Your task to perform on an android device: Open the calendar app, open the side menu, and click the "Day" option Image 0: 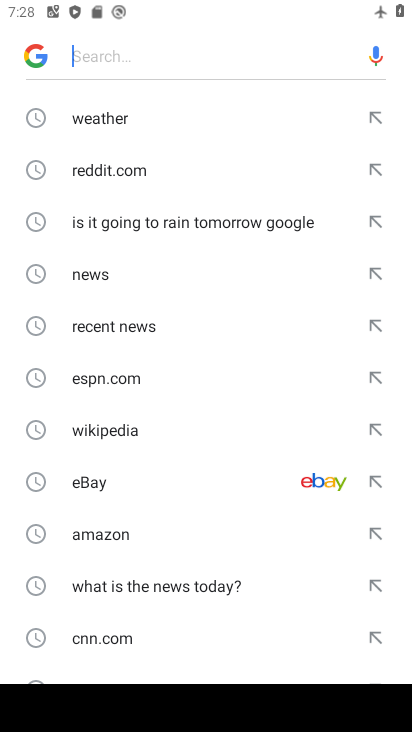
Step 0: press home button
Your task to perform on an android device: Open the calendar app, open the side menu, and click the "Day" option Image 1: 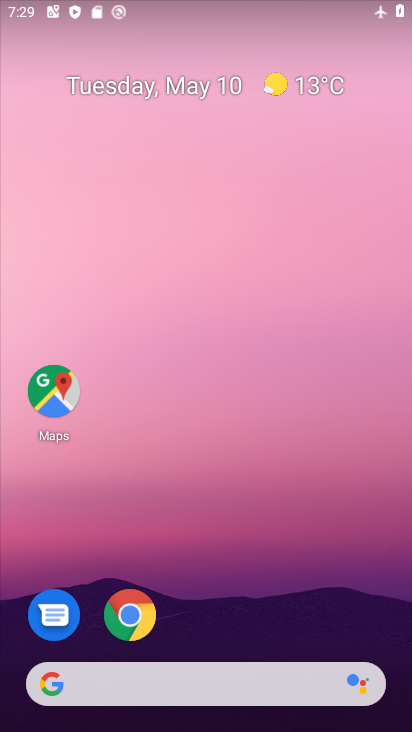
Step 1: drag from (248, 499) to (160, 98)
Your task to perform on an android device: Open the calendar app, open the side menu, and click the "Day" option Image 2: 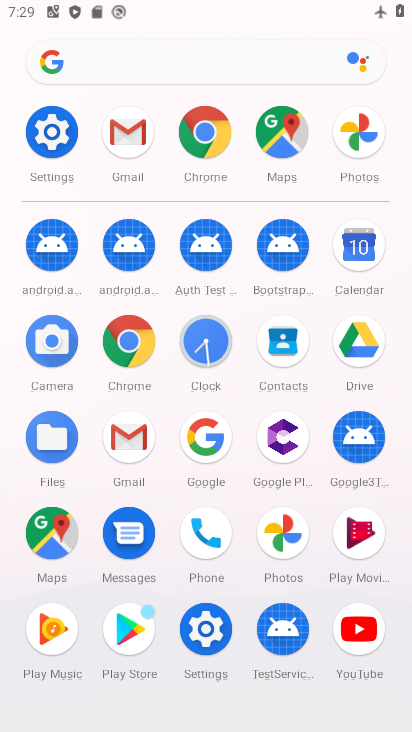
Step 2: click (361, 250)
Your task to perform on an android device: Open the calendar app, open the side menu, and click the "Day" option Image 3: 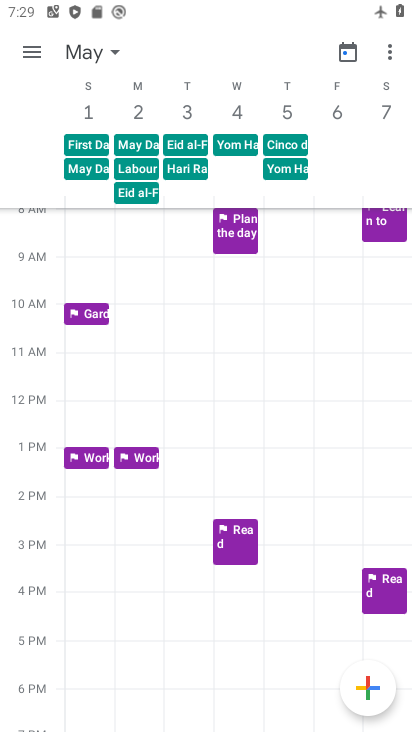
Step 3: click (32, 49)
Your task to perform on an android device: Open the calendar app, open the side menu, and click the "Day" option Image 4: 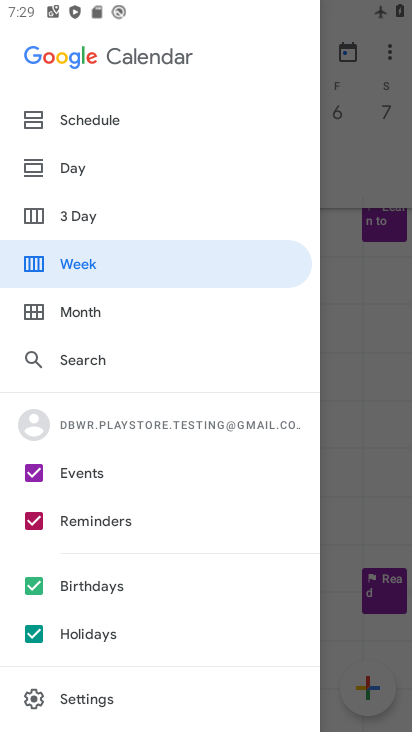
Step 4: click (76, 164)
Your task to perform on an android device: Open the calendar app, open the side menu, and click the "Day" option Image 5: 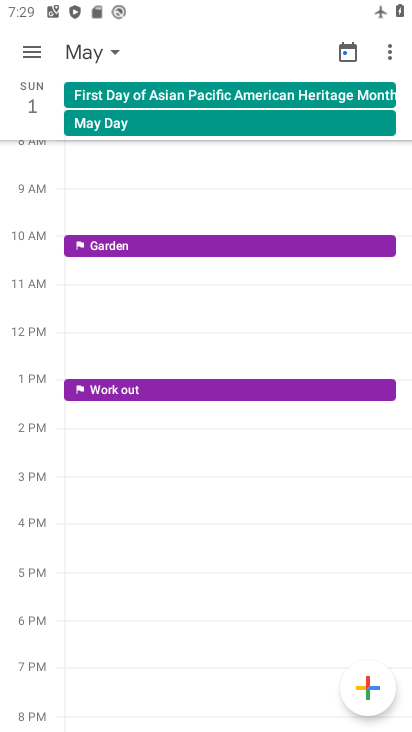
Step 5: task complete